Your task to perform on an android device: Do I have any events today? Image 0: 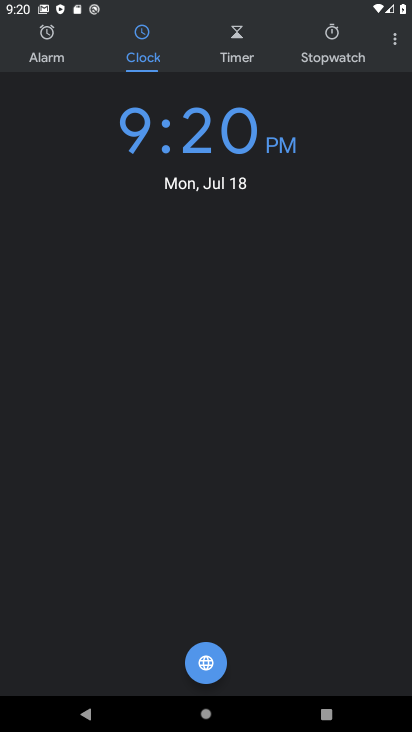
Step 0: press home button
Your task to perform on an android device: Do I have any events today? Image 1: 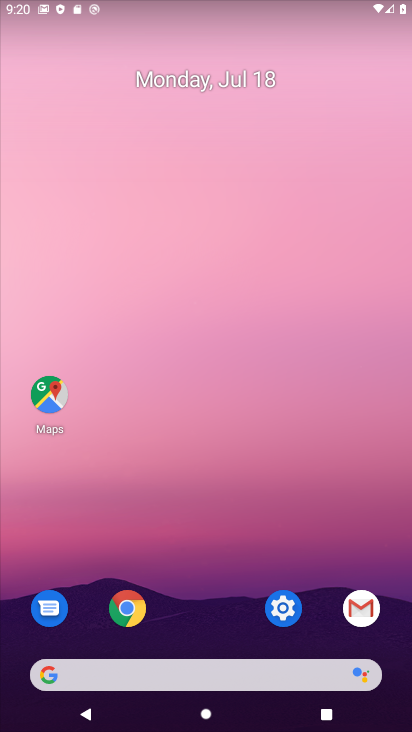
Step 1: click (192, 672)
Your task to perform on an android device: Do I have any events today? Image 2: 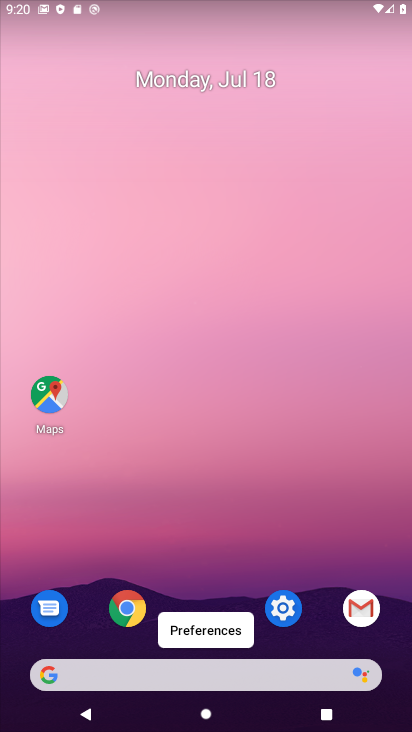
Step 2: drag from (219, 692) to (330, 102)
Your task to perform on an android device: Do I have any events today? Image 3: 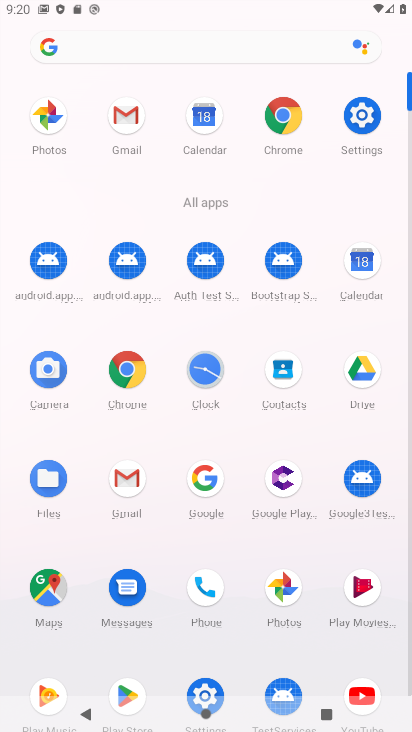
Step 3: click (364, 248)
Your task to perform on an android device: Do I have any events today? Image 4: 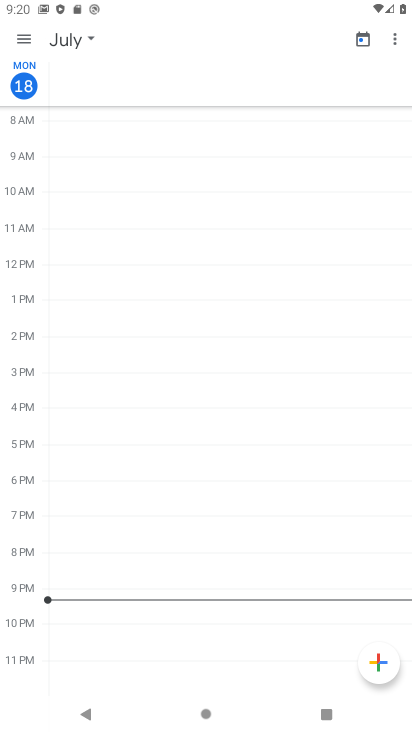
Step 4: click (30, 30)
Your task to perform on an android device: Do I have any events today? Image 5: 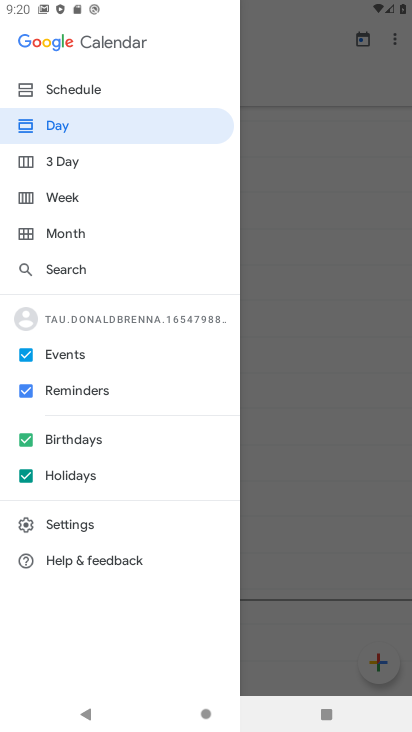
Step 5: click (77, 235)
Your task to perform on an android device: Do I have any events today? Image 6: 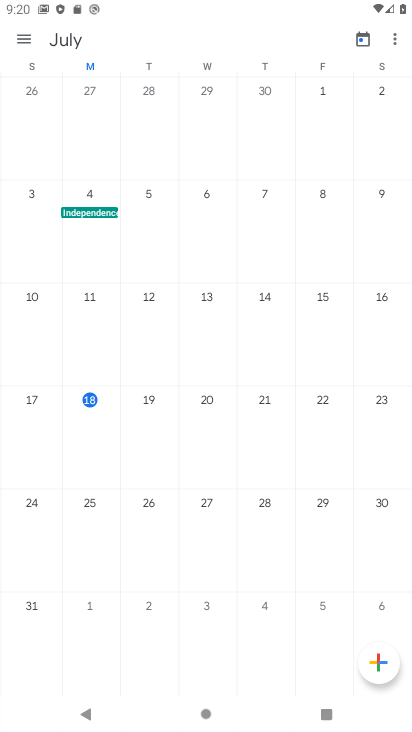
Step 6: click (91, 409)
Your task to perform on an android device: Do I have any events today? Image 7: 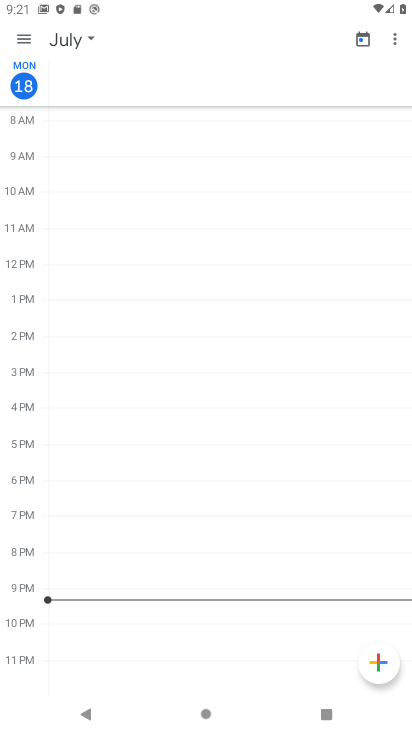
Step 7: task complete